Your task to perform on an android device: Go to Maps Image 0: 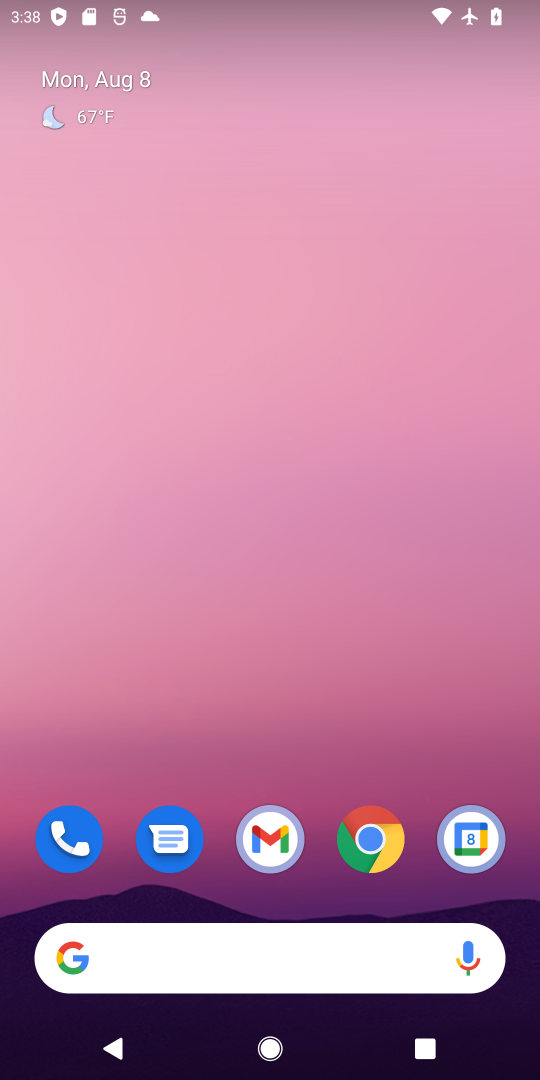
Step 0: press home button
Your task to perform on an android device: Go to Maps Image 1: 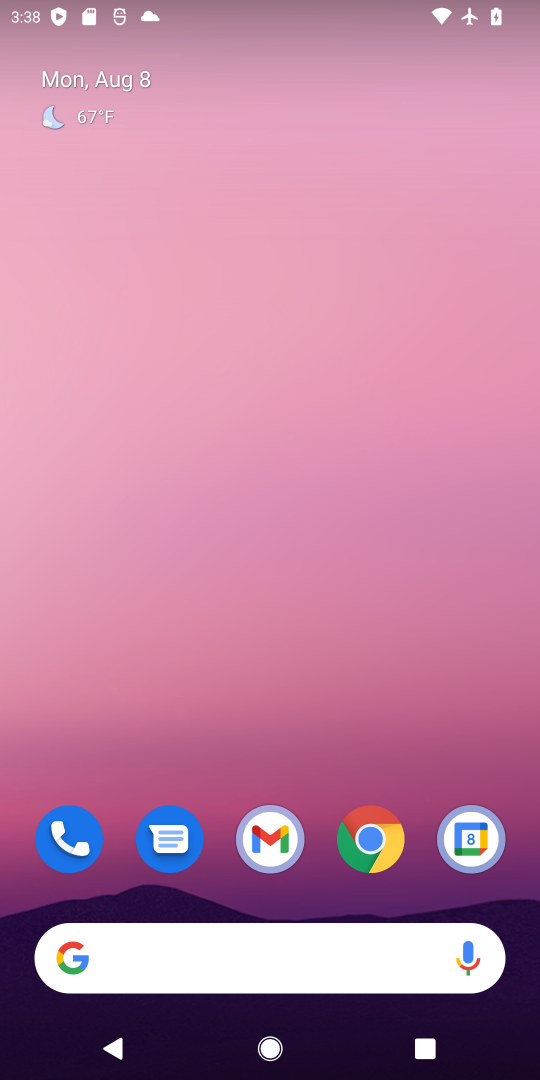
Step 1: drag from (416, 729) to (417, 287)
Your task to perform on an android device: Go to Maps Image 2: 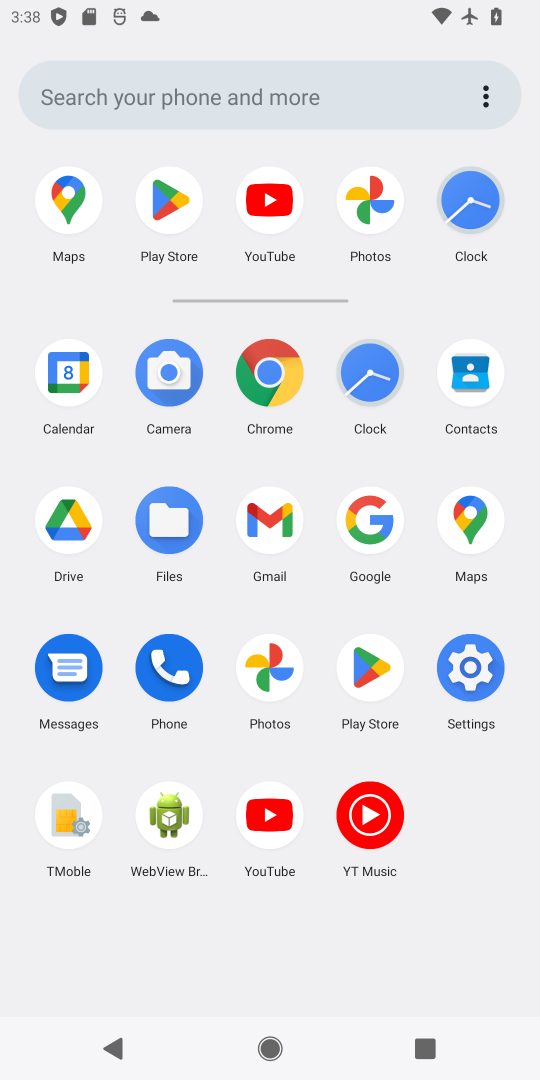
Step 2: click (474, 509)
Your task to perform on an android device: Go to Maps Image 3: 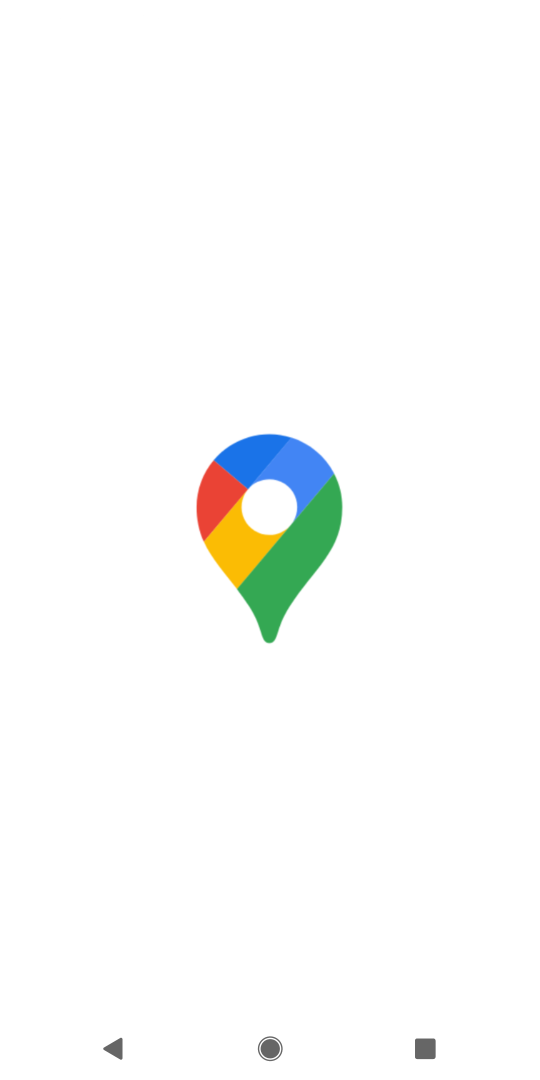
Step 3: task complete